Your task to perform on an android device: turn on location history Image 0: 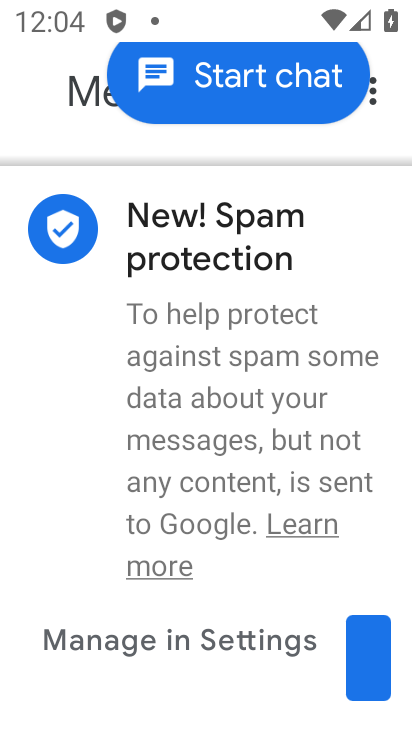
Step 0: press home button
Your task to perform on an android device: turn on location history Image 1: 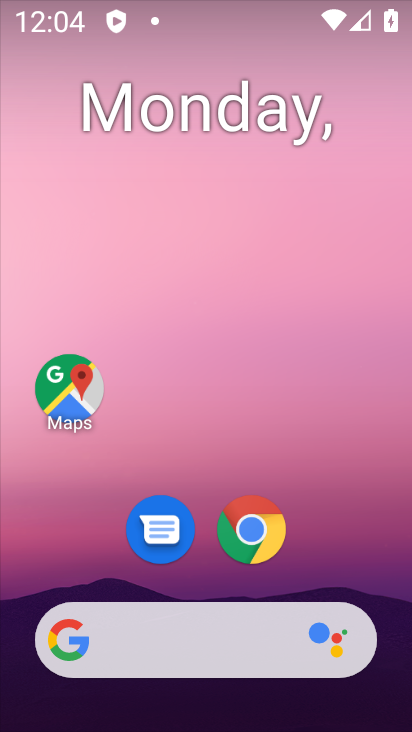
Step 1: drag from (216, 630) to (15, 260)
Your task to perform on an android device: turn on location history Image 2: 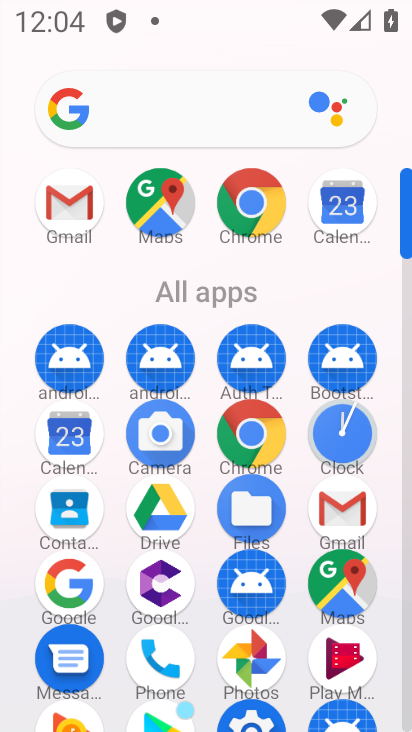
Step 2: drag from (232, 612) to (242, 74)
Your task to perform on an android device: turn on location history Image 3: 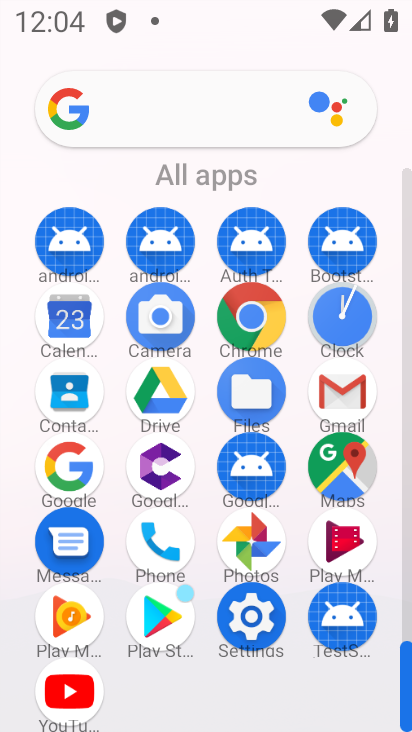
Step 3: click (263, 632)
Your task to perform on an android device: turn on location history Image 4: 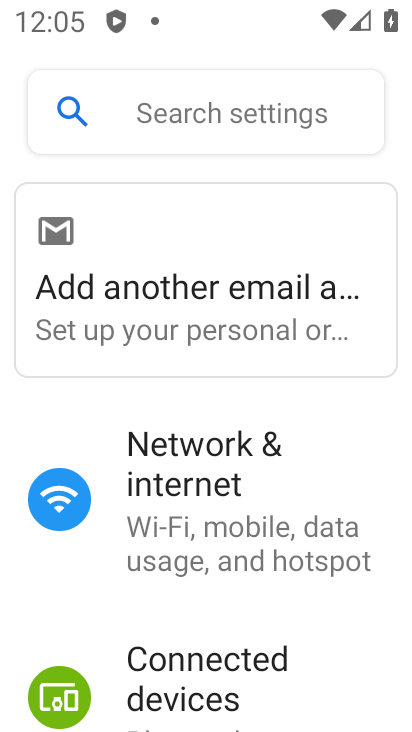
Step 4: drag from (204, 645) to (194, 70)
Your task to perform on an android device: turn on location history Image 5: 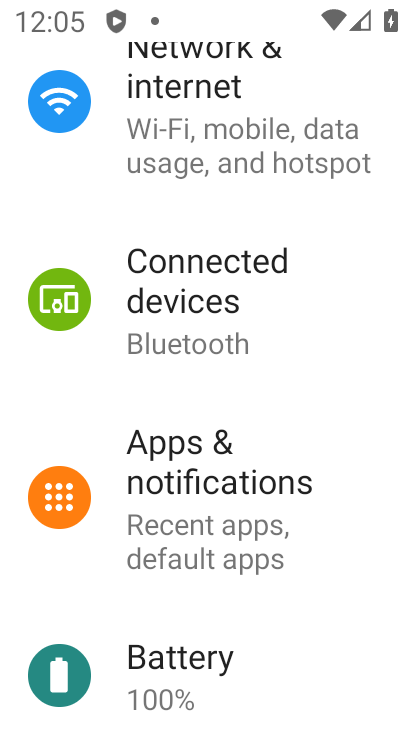
Step 5: drag from (160, 558) to (160, 47)
Your task to perform on an android device: turn on location history Image 6: 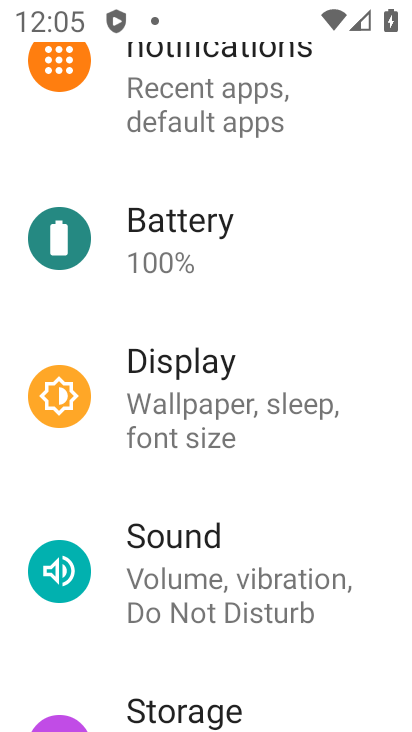
Step 6: drag from (168, 573) to (172, 111)
Your task to perform on an android device: turn on location history Image 7: 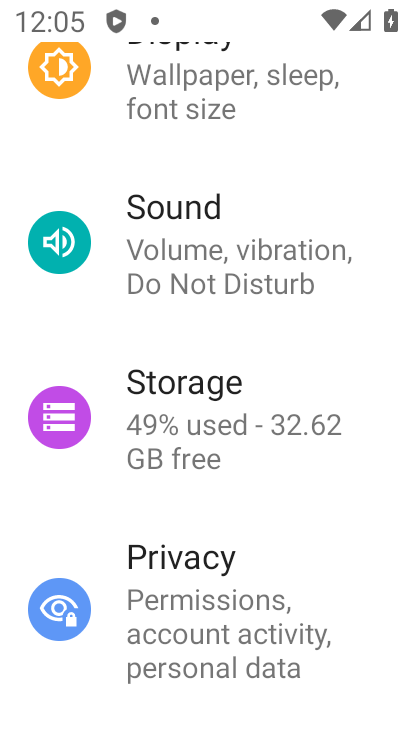
Step 7: drag from (162, 554) to (157, 65)
Your task to perform on an android device: turn on location history Image 8: 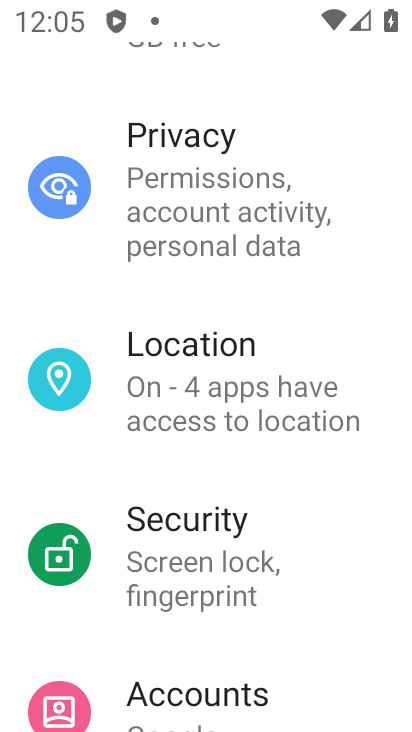
Step 8: click (226, 345)
Your task to perform on an android device: turn on location history Image 9: 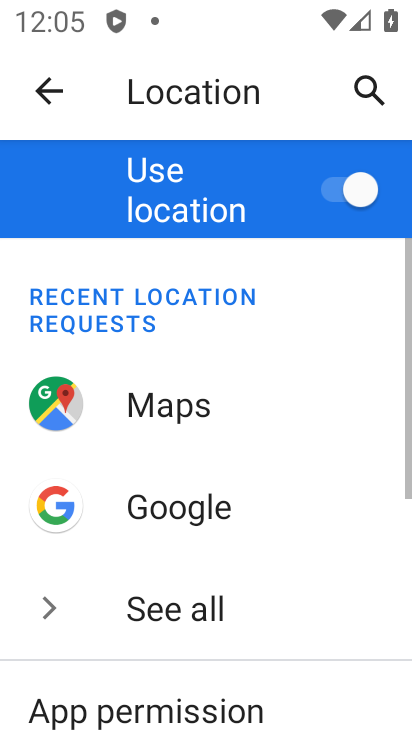
Step 9: drag from (206, 632) to (196, 145)
Your task to perform on an android device: turn on location history Image 10: 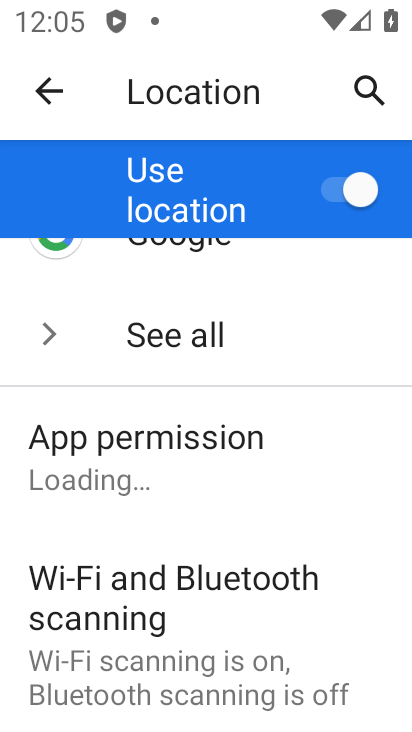
Step 10: drag from (229, 633) to (189, 115)
Your task to perform on an android device: turn on location history Image 11: 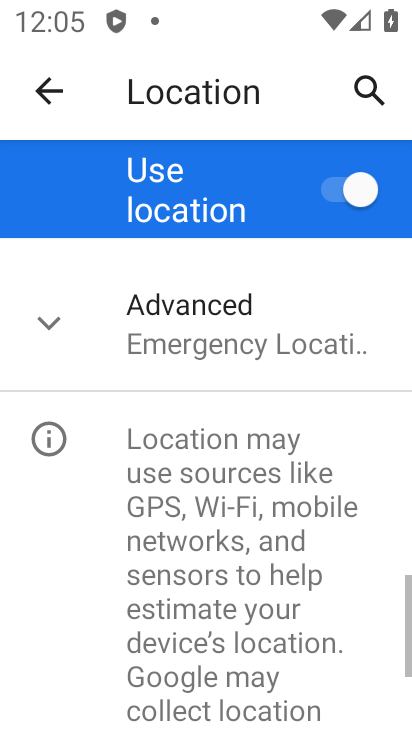
Step 11: click (181, 366)
Your task to perform on an android device: turn on location history Image 12: 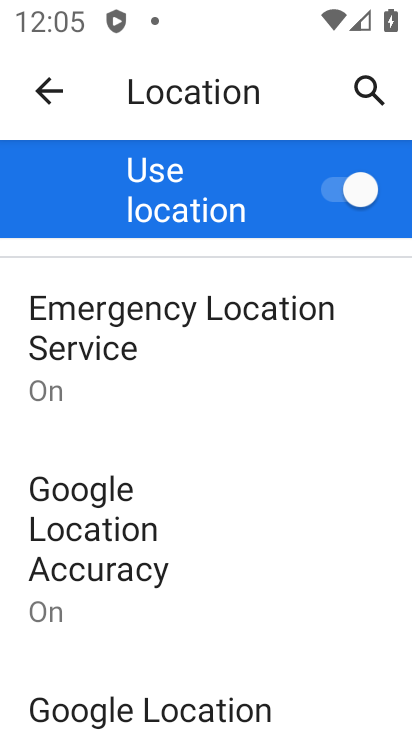
Step 12: drag from (183, 672) to (114, 146)
Your task to perform on an android device: turn on location history Image 13: 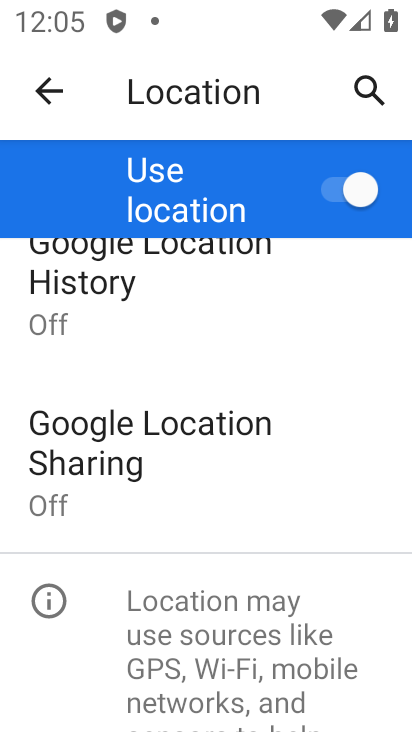
Step 13: click (108, 302)
Your task to perform on an android device: turn on location history Image 14: 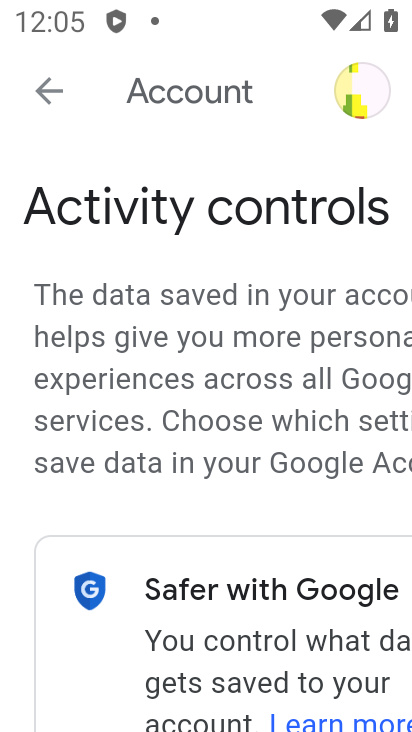
Step 14: drag from (348, 657) to (69, 297)
Your task to perform on an android device: turn on location history Image 15: 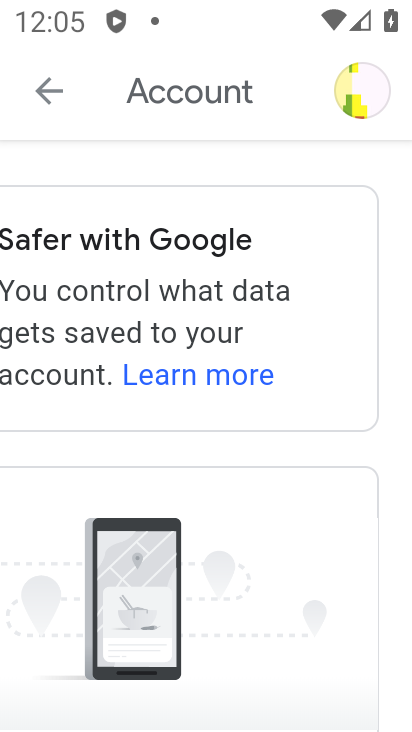
Step 15: drag from (296, 656) to (158, 236)
Your task to perform on an android device: turn on location history Image 16: 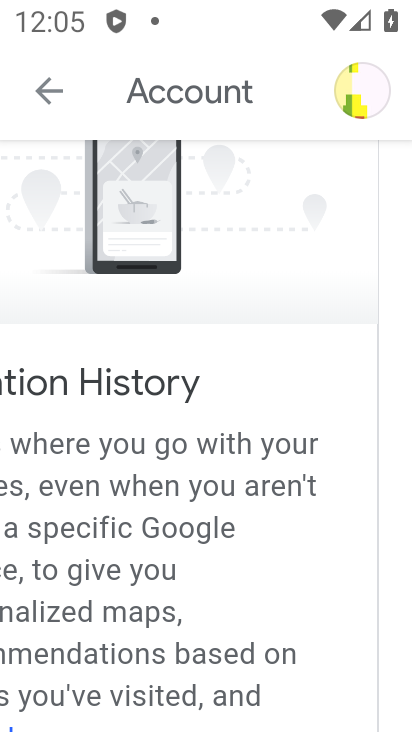
Step 16: drag from (224, 616) to (173, 187)
Your task to perform on an android device: turn on location history Image 17: 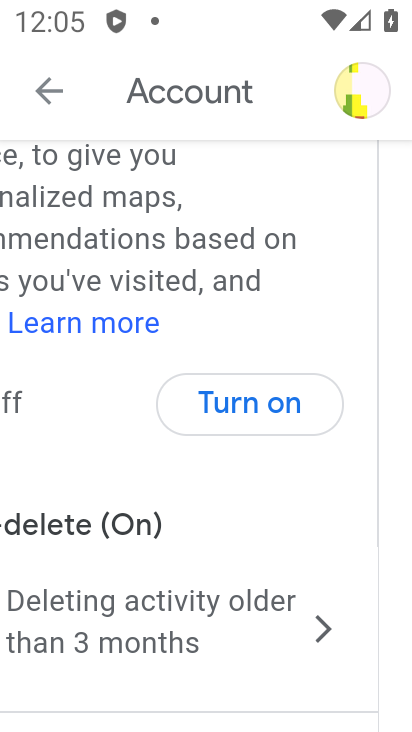
Step 17: click (231, 403)
Your task to perform on an android device: turn on location history Image 18: 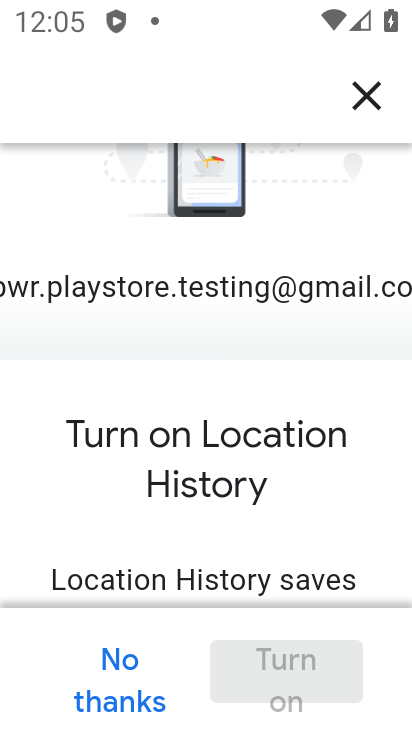
Step 18: drag from (298, 568) to (37, 5)
Your task to perform on an android device: turn on location history Image 19: 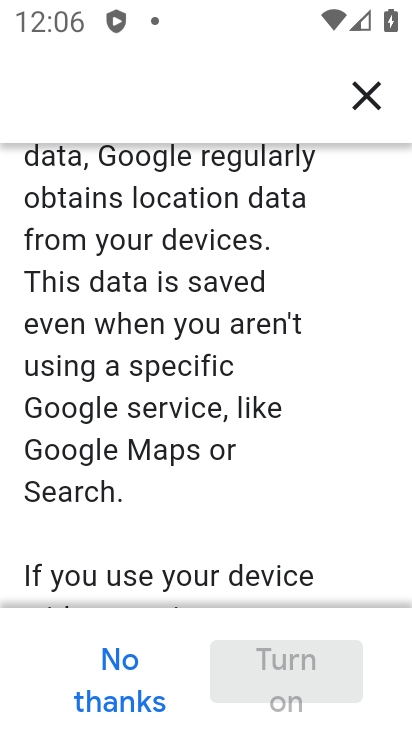
Step 19: drag from (246, 481) to (155, 3)
Your task to perform on an android device: turn on location history Image 20: 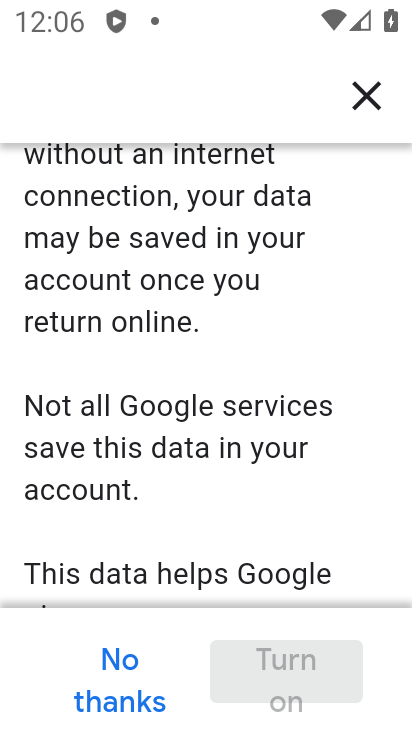
Step 20: drag from (327, 519) to (53, 6)
Your task to perform on an android device: turn on location history Image 21: 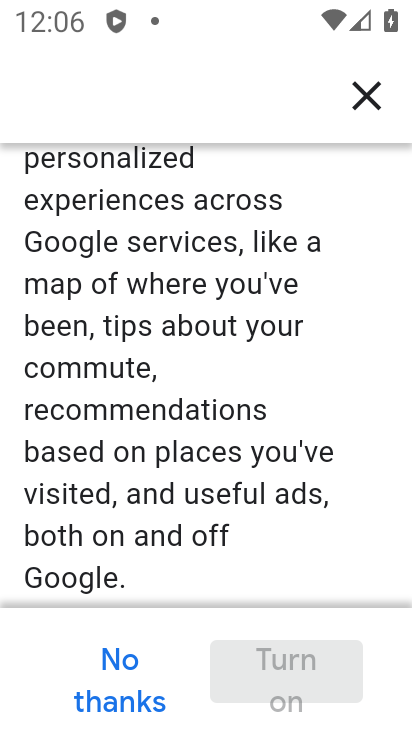
Step 21: drag from (301, 586) to (246, 59)
Your task to perform on an android device: turn on location history Image 22: 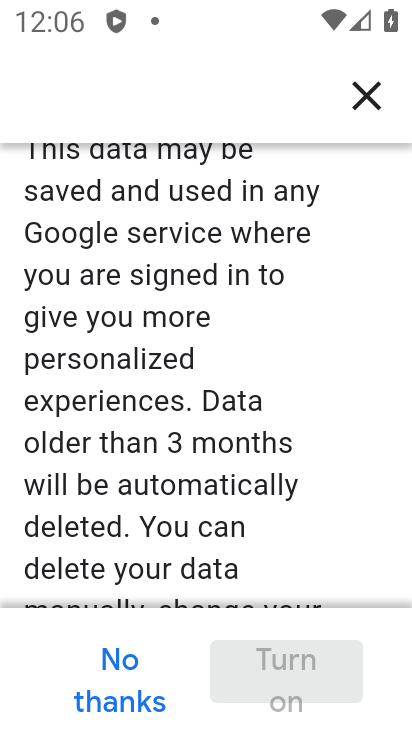
Step 22: drag from (291, 571) to (298, 115)
Your task to perform on an android device: turn on location history Image 23: 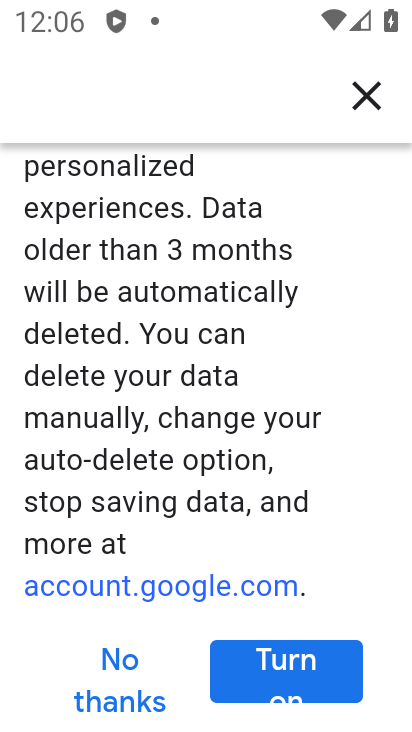
Step 23: click (321, 691)
Your task to perform on an android device: turn on location history Image 24: 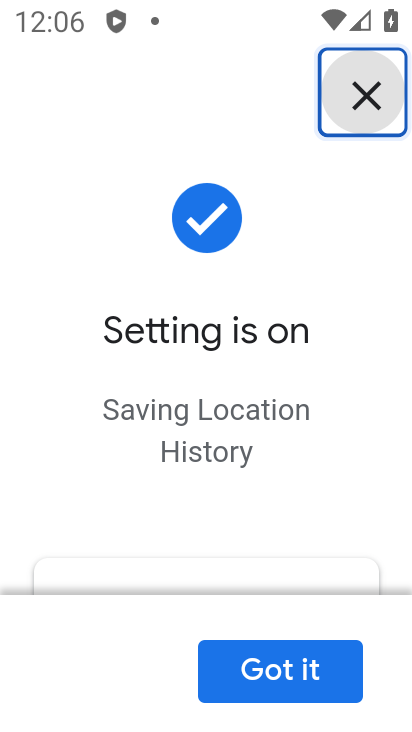
Step 24: click (321, 691)
Your task to perform on an android device: turn on location history Image 25: 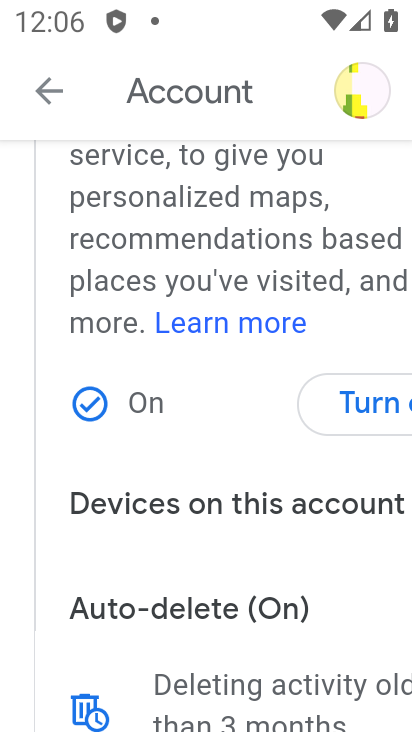
Step 25: task complete